Your task to perform on an android device: Is it going to rain tomorrow? Image 0: 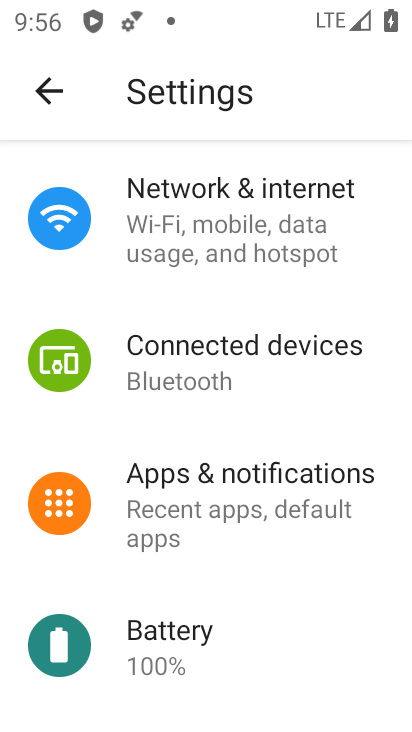
Step 0: press home button
Your task to perform on an android device: Is it going to rain tomorrow? Image 1: 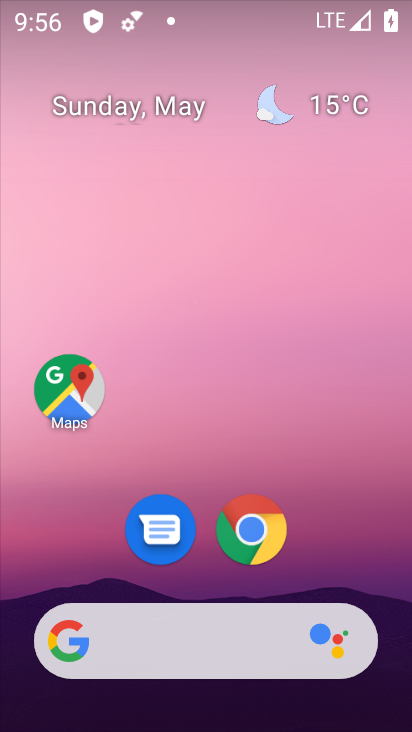
Step 1: drag from (275, 596) to (347, 164)
Your task to perform on an android device: Is it going to rain tomorrow? Image 2: 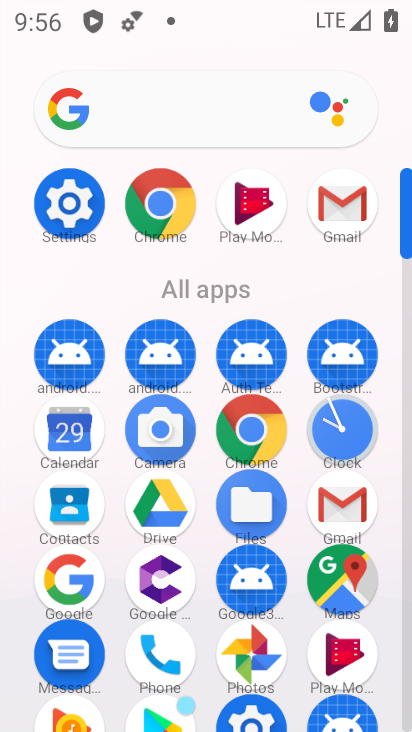
Step 2: press home button
Your task to perform on an android device: Is it going to rain tomorrow? Image 3: 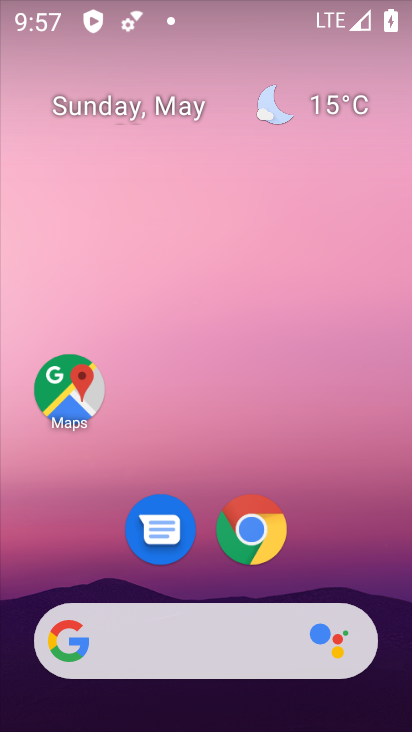
Step 3: drag from (76, 247) to (397, 235)
Your task to perform on an android device: Is it going to rain tomorrow? Image 4: 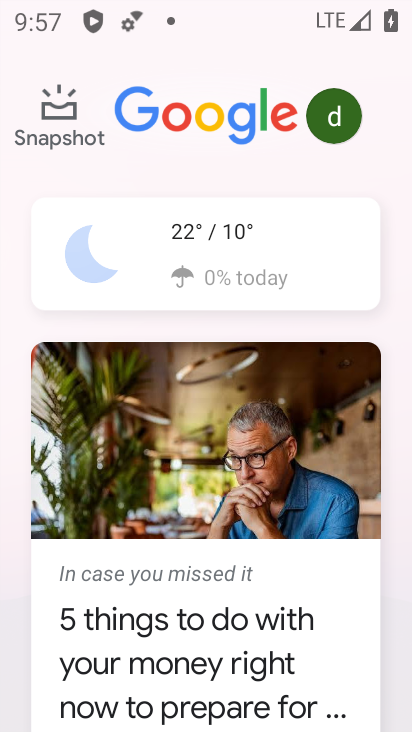
Step 4: click (222, 228)
Your task to perform on an android device: Is it going to rain tomorrow? Image 5: 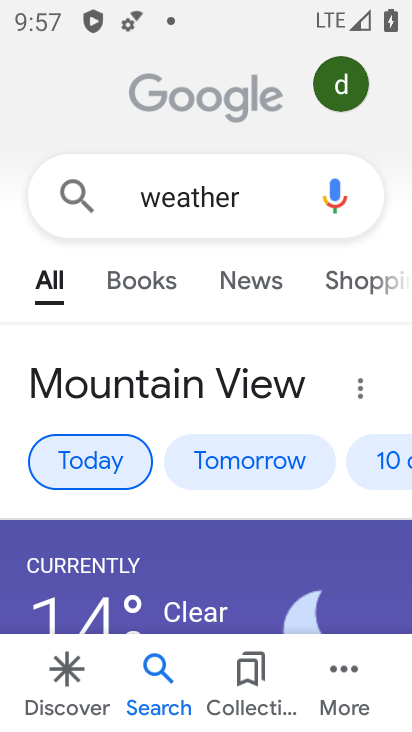
Step 5: task complete